Your task to perform on an android device: Open calendar and show me the third week of next month Image 0: 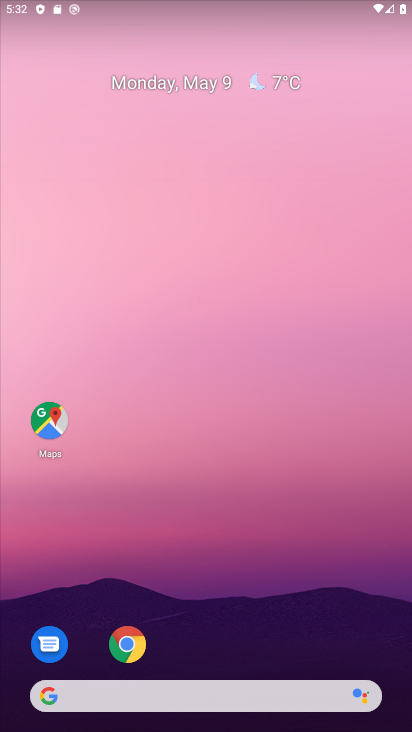
Step 0: drag from (271, 611) to (260, 84)
Your task to perform on an android device: Open calendar and show me the third week of next month Image 1: 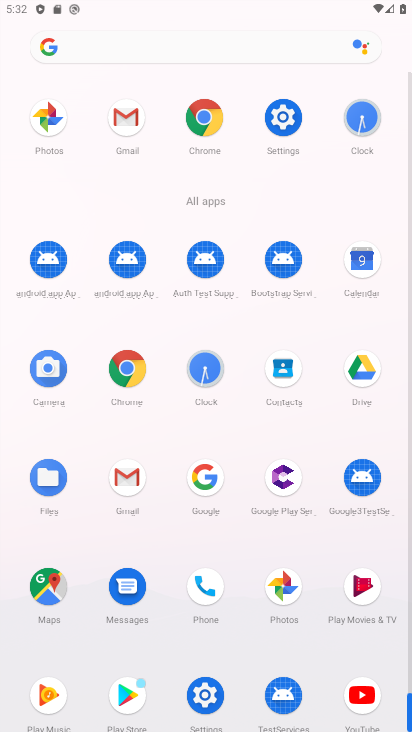
Step 1: click (356, 262)
Your task to perform on an android device: Open calendar and show me the third week of next month Image 2: 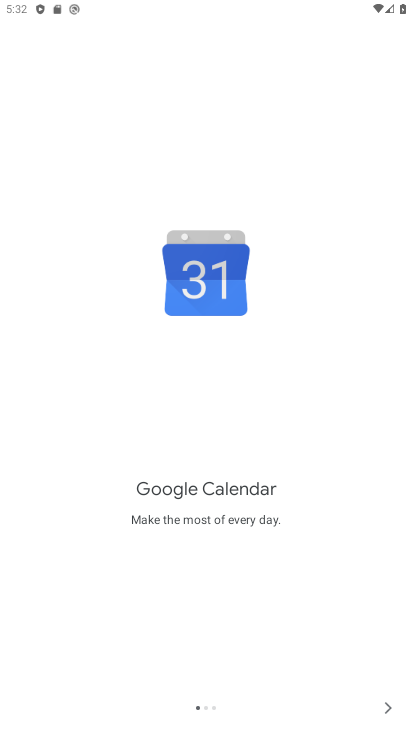
Step 2: click (384, 705)
Your task to perform on an android device: Open calendar and show me the third week of next month Image 3: 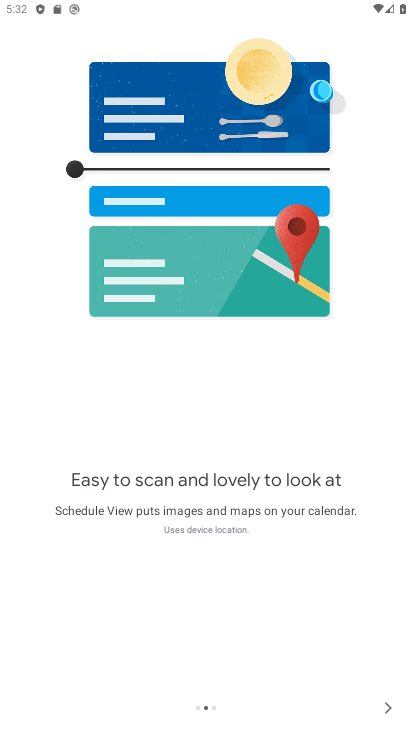
Step 3: click (385, 703)
Your task to perform on an android device: Open calendar and show me the third week of next month Image 4: 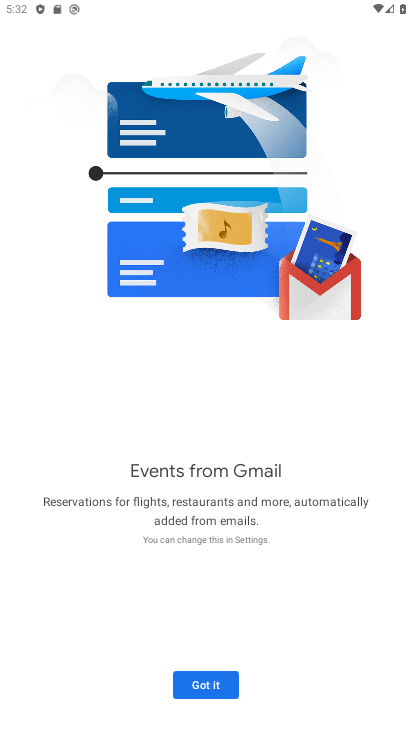
Step 4: click (232, 686)
Your task to perform on an android device: Open calendar and show me the third week of next month Image 5: 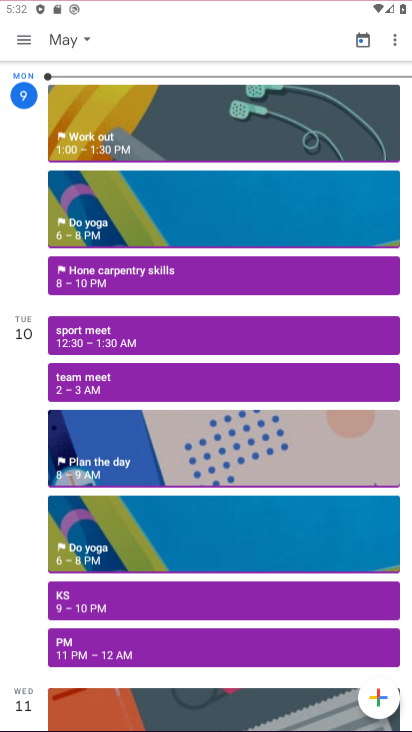
Step 5: click (204, 681)
Your task to perform on an android device: Open calendar and show me the third week of next month Image 6: 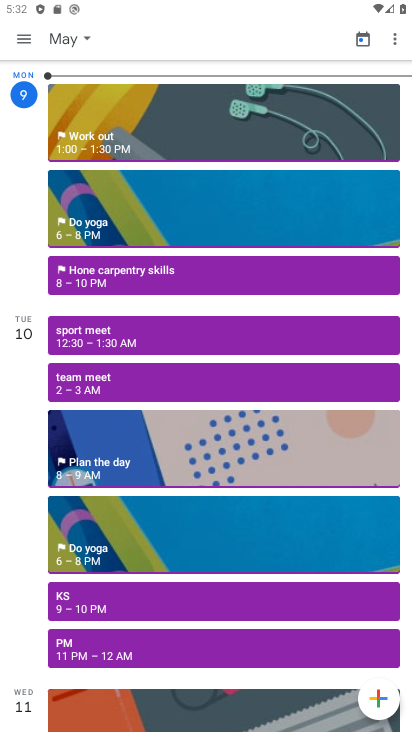
Step 6: click (20, 42)
Your task to perform on an android device: Open calendar and show me the third week of next month Image 7: 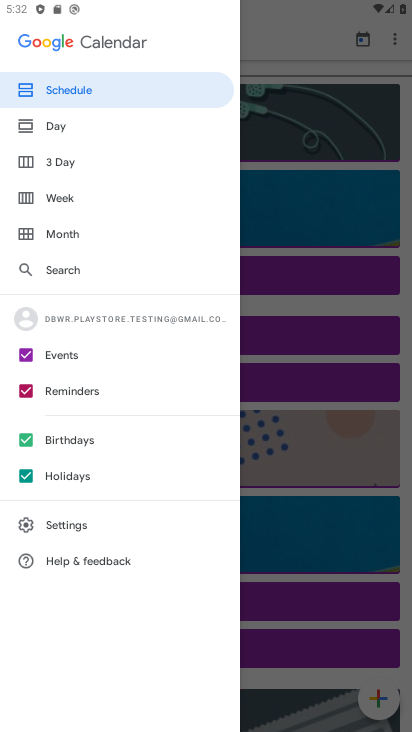
Step 7: click (57, 201)
Your task to perform on an android device: Open calendar and show me the third week of next month Image 8: 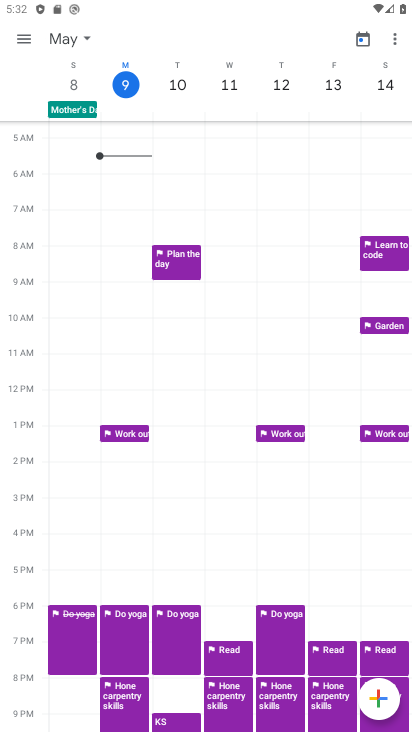
Step 8: click (83, 36)
Your task to perform on an android device: Open calendar and show me the third week of next month Image 9: 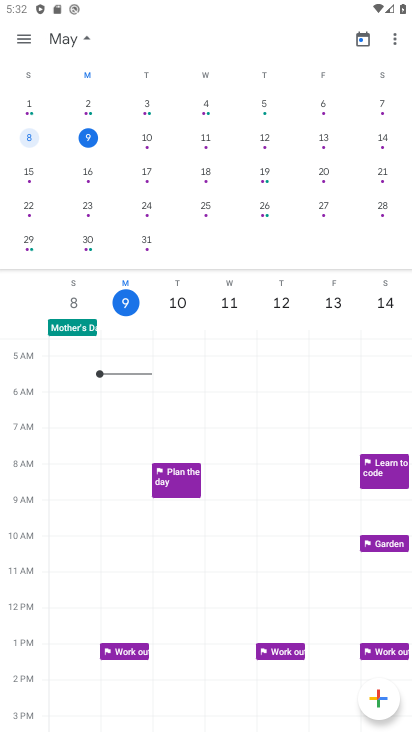
Step 9: drag from (350, 186) to (1, 178)
Your task to perform on an android device: Open calendar and show me the third week of next month Image 10: 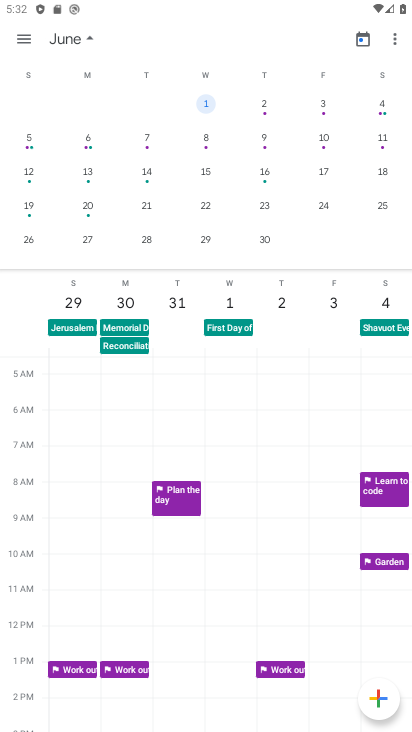
Step 10: click (27, 167)
Your task to perform on an android device: Open calendar and show me the third week of next month Image 11: 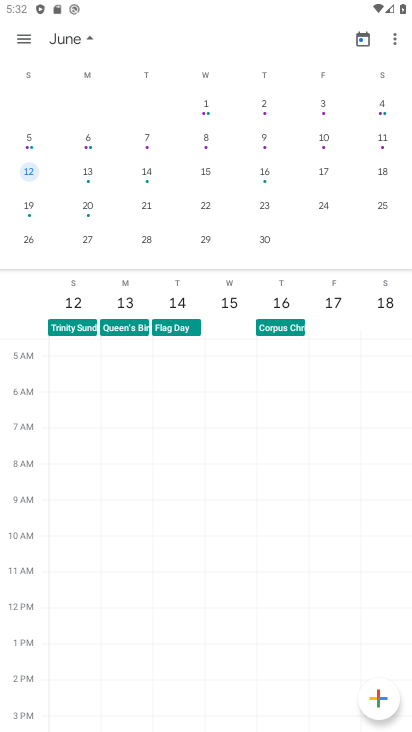
Step 11: task complete